Your task to perform on an android device: Open Maps and search for coffee Image 0: 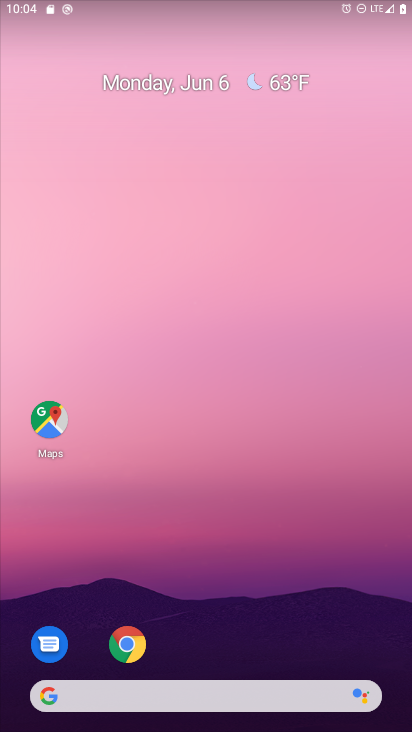
Step 0: drag from (190, 728) to (228, 198)
Your task to perform on an android device: Open Maps and search for coffee Image 1: 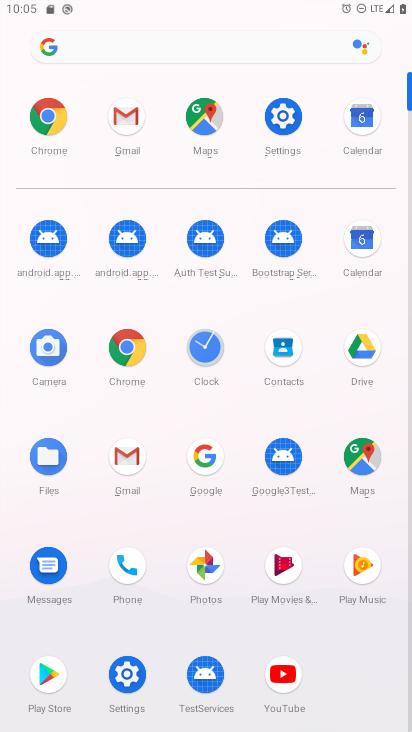
Step 1: click (202, 106)
Your task to perform on an android device: Open Maps and search for coffee Image 2: 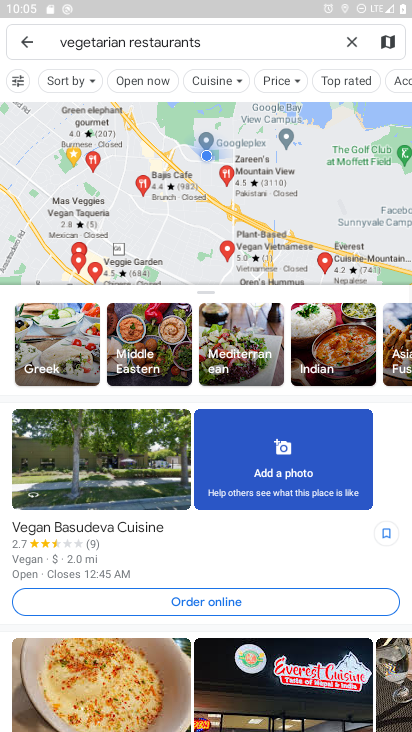
Step 2: click (348, 39)
Your task to perform on an android device: Open Maps and search for coffee Image 3: 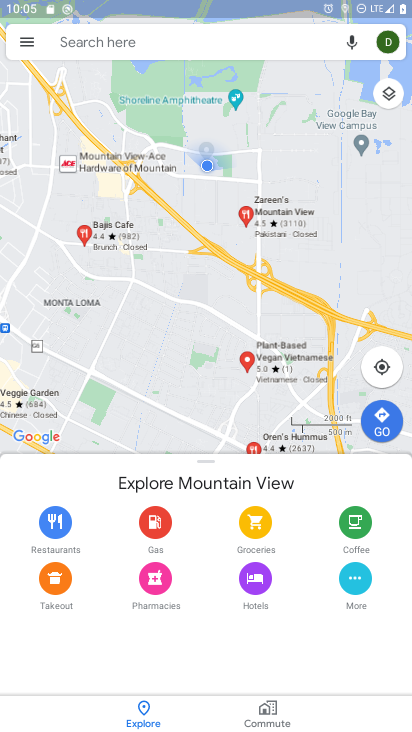
Step 3: click (109, 47)
Your task to perform on an android device: Open Maps and search for coffee Image 4: 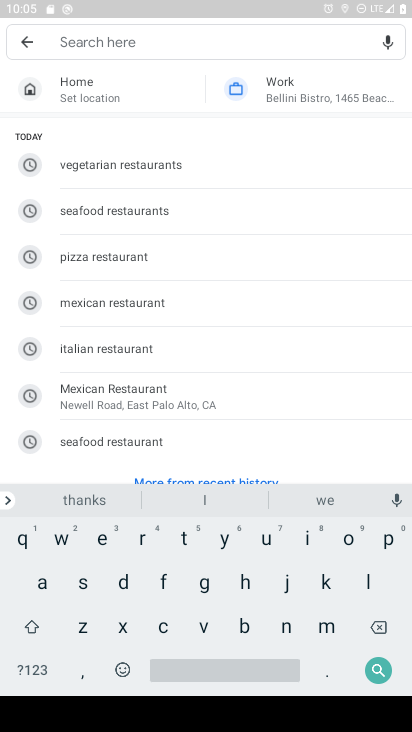
Step 4: click (163, 623)
Your task to perform on an android device: Open Maps and search for coffee Image 5: 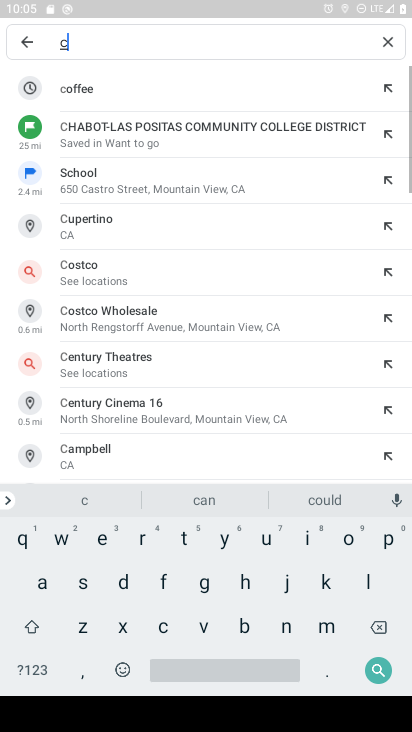
Step 5: click (100, 87)
Your task to perform on an android device: Open Maps and search for coffee Image 6: 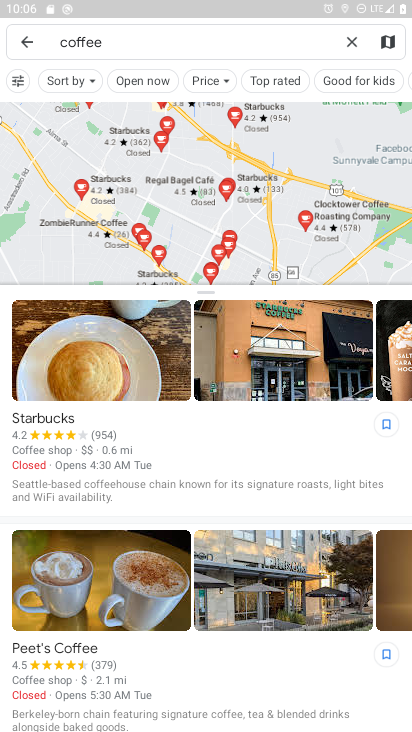
Step 6: task complete